Your task to perform on an android device: check battery use Image 0: 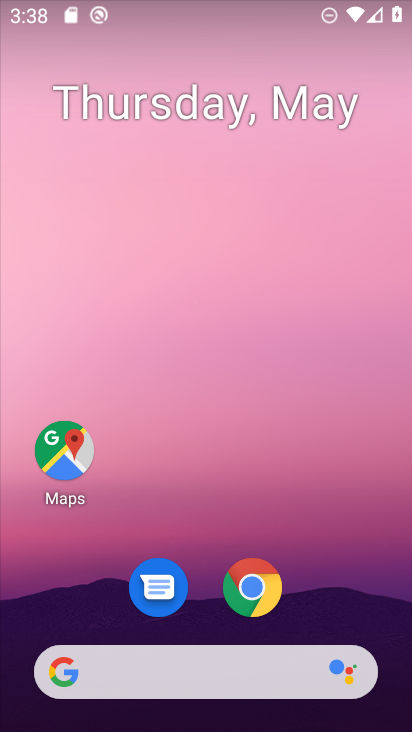
Step 0: drag from (337, 617) to (341, 198)
Your task to perform on an android device: check battery use Image 1: 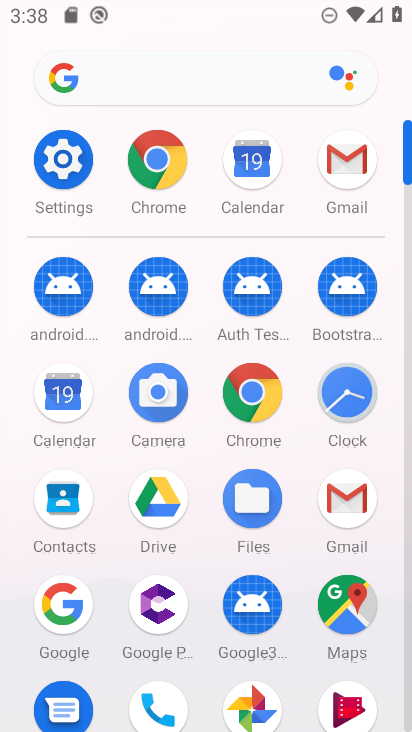
Step 1: click (47, 175)
Your task to perform on an android device: check battery use Image 2: 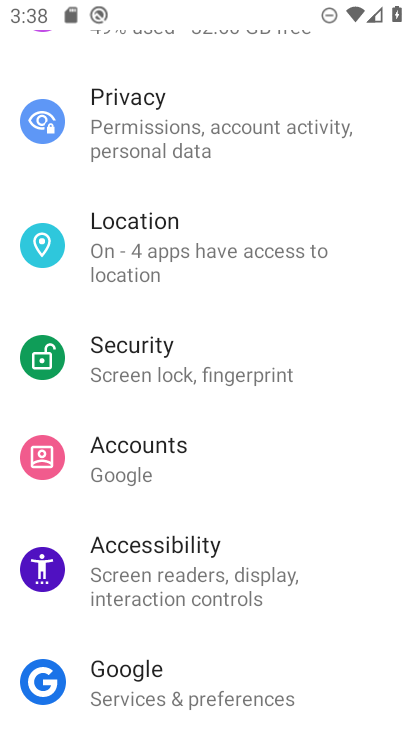
Step 2: drag from (327, 328) to (329, 412)
Your task to perform on an android device: check battery use Image 3: 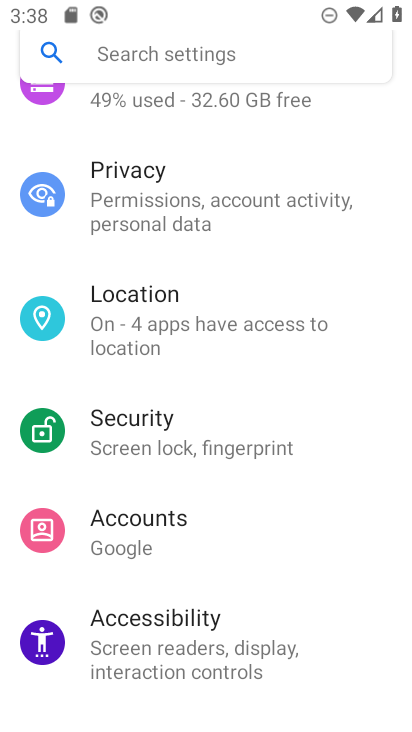
Step 3: drag from (347, 304) to (342, 415)
Your task to perform on an android device: check battery use Image 4: 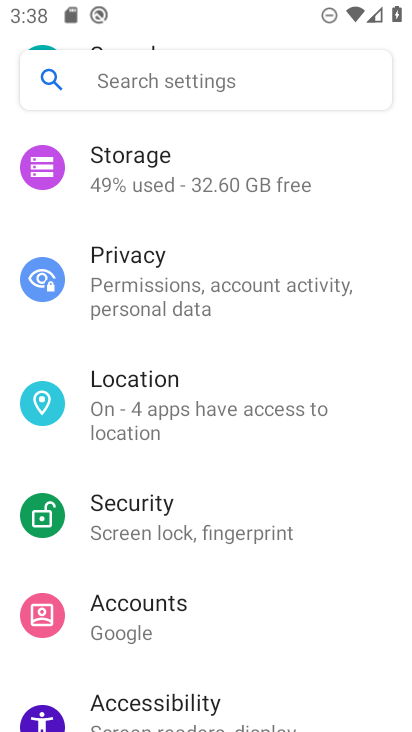
Step 4: drag from (367, 251) to (365, 369)
Your task to perform on an android device: check battery use Image 5: 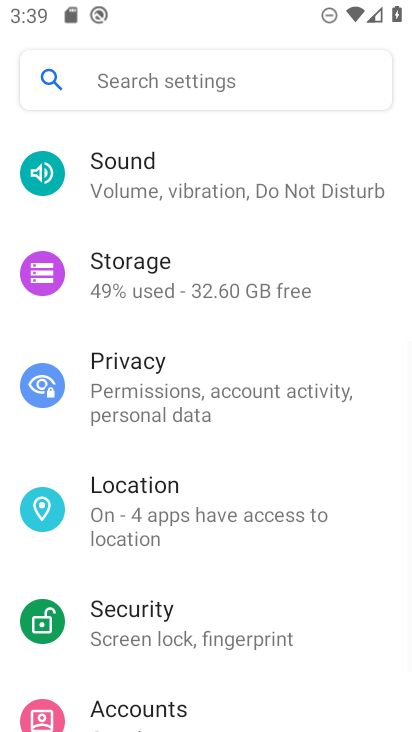
Step 5: drag from (368, 266) to (368, 367)
Your task to perform on an android device: check battery use Image 6: 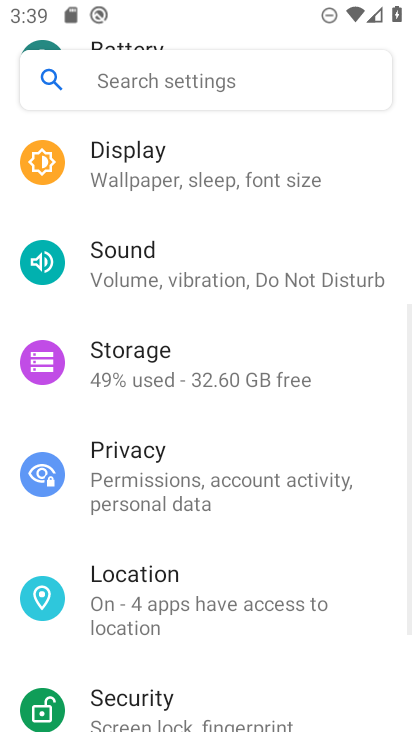
Step 6: drag from (359, 216) to (361, 321)
Your task to perform on an android device: check battery use Image 7: 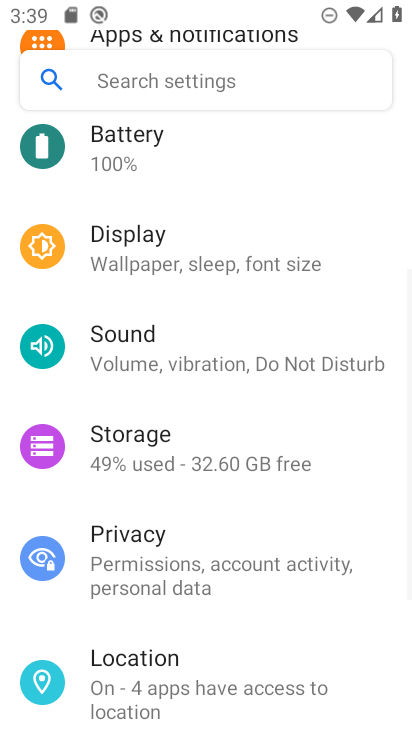
Step 7: drag from (349, 210) to (352, 315)
Your task to perform on an android device: check battery use Image 8: 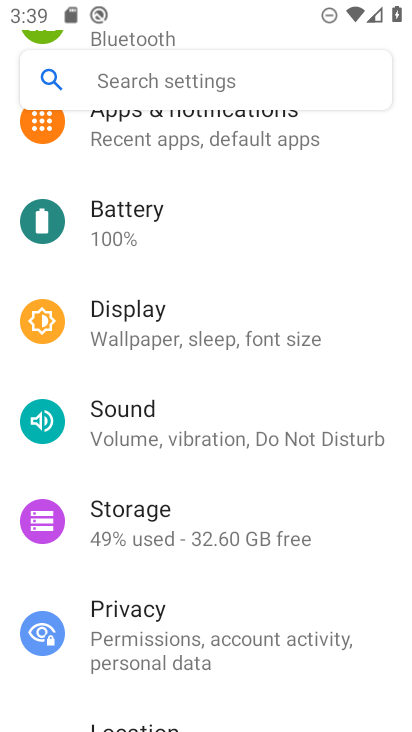
Step 8: drag from (336, 193) to (340, 298)
Your task to perform on an android device: check battery use Image 9: 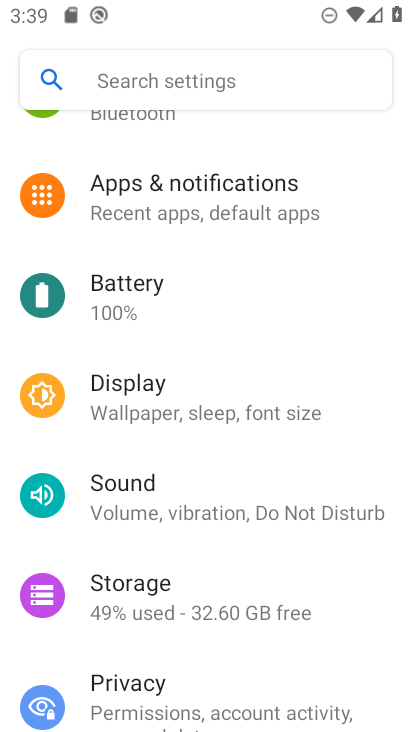
Step 9: drag from (333, 209) to (330, 310)
Your task to perform on an android device: check battery use Image 10: 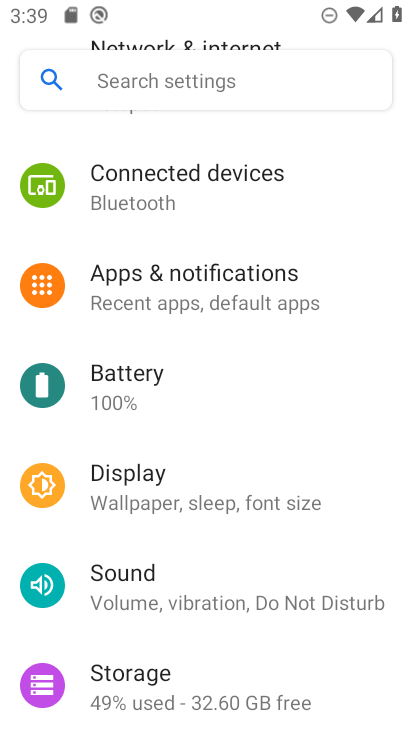
Step 10: drag from (330, 225) to (330, 299)
Your task to perform on an android device: check battery use Image 11: 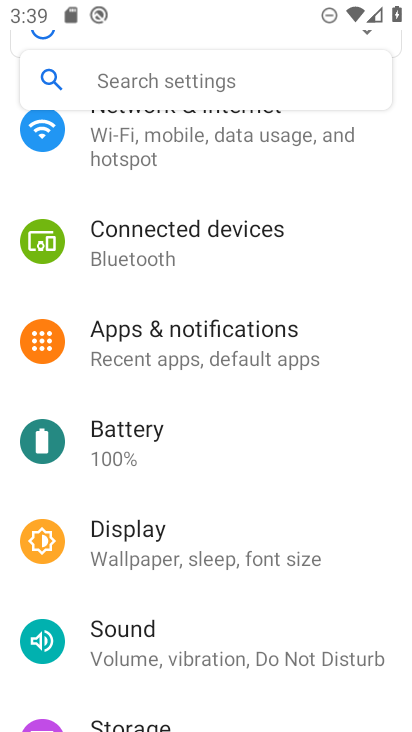
Step 11: drag from (329, 342) to (331, 256)
Your task to perform on an android device: check battery use Image 12: 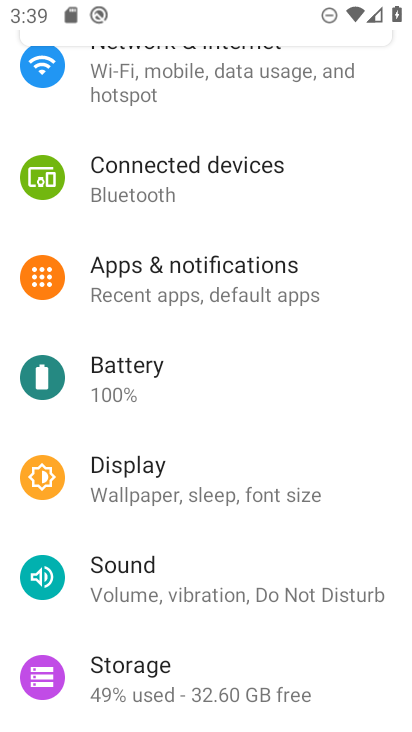
Step 12: drag from (336, 345) to (336, 233)
Your task to perform on an android device: check battery use Image 13: 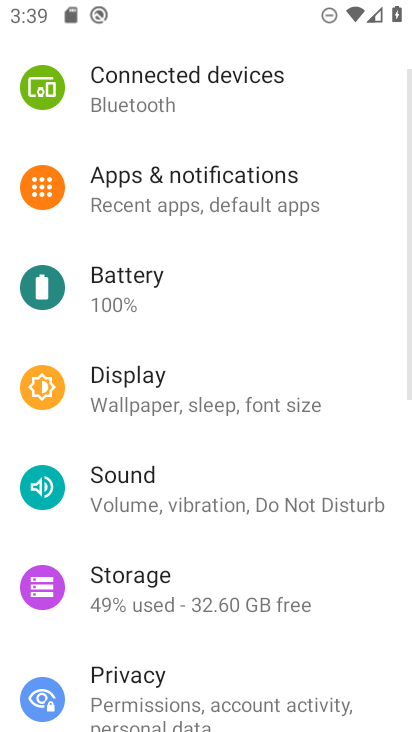
Step 13: drag from (341, 356) to (341, 293)
Your task to perform on an android device: check battery use Image 14: 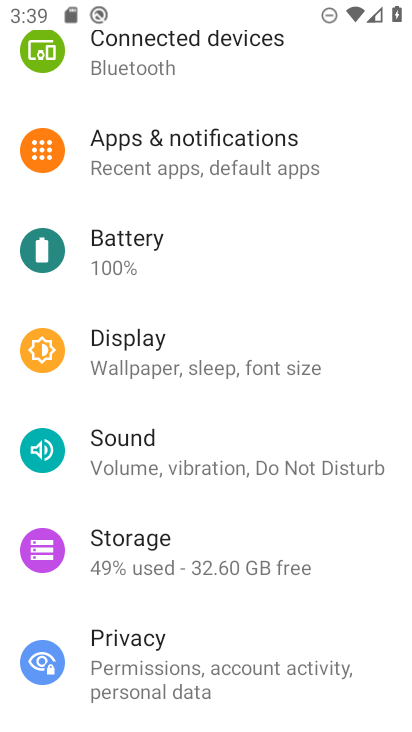
Step 14: click (275, 264)
Your task to perform on an android device: check battery use Image 15: 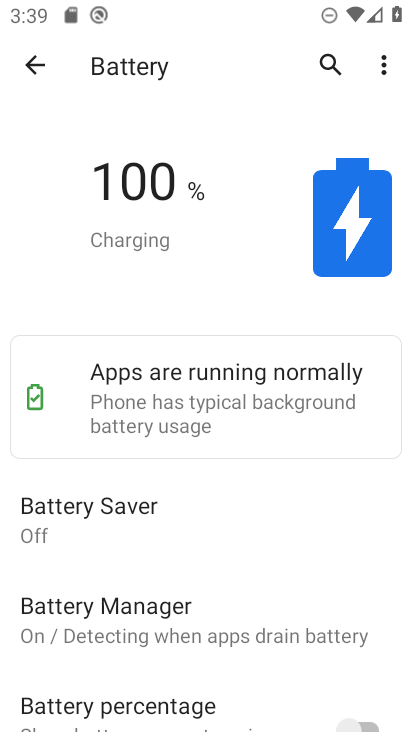
Step 15: click (379, 65)
Your task to perform on an android device: check battery use Image 16: 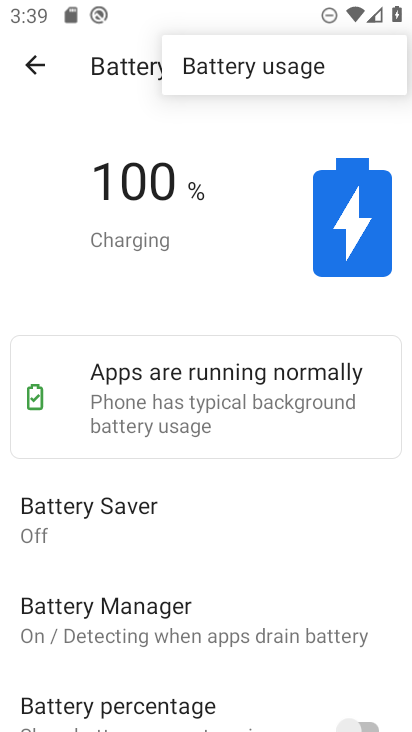
Step 16: click (316, 74)
Your task to perform on an android device: check battery use Image 17: 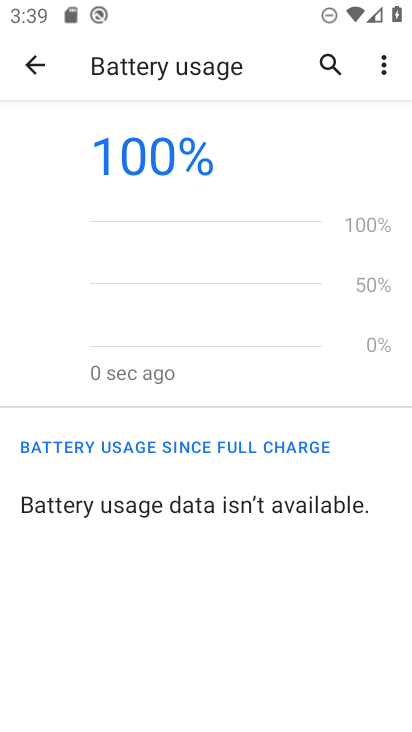
Step 17: task complete